Your task to perform on an android device: turn on priority inbox in the gmail app Image 0: 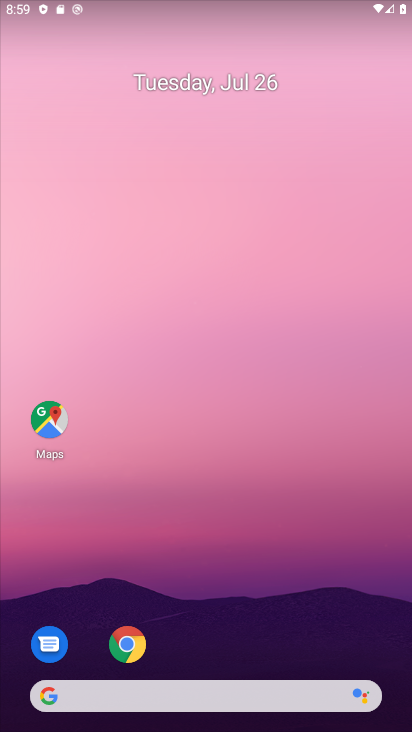
Step 0: drag from (221, 502) to (303, 9)
Your task to perform on an android device: turn on priority inbox in the gmail app Image 1: 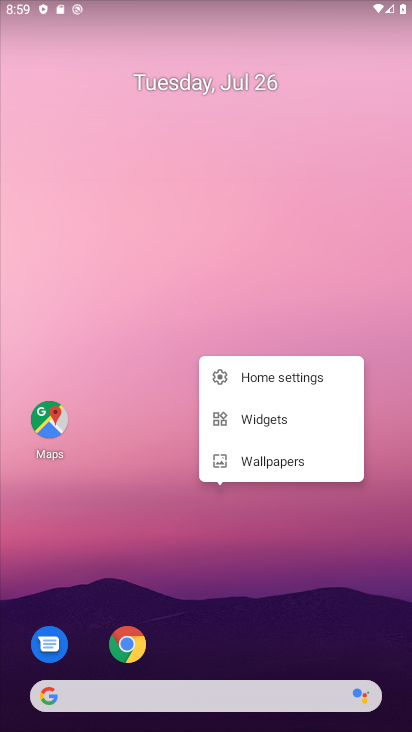
Step 1: drag from (226, 647) to (201, 20)
Your task to perform on an android device: turn on priority inbox in the gmail app Image 2: 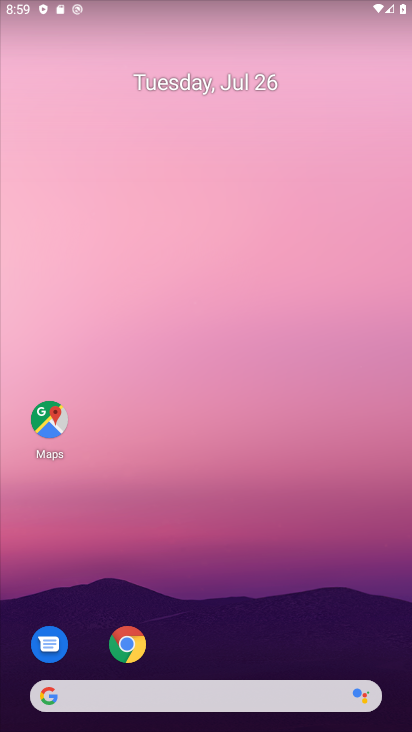
Step 2: drag from (210, 654) to (327, 80)
Your task to perform on an android device: turn on priority inbox in the gmail app Image 3: 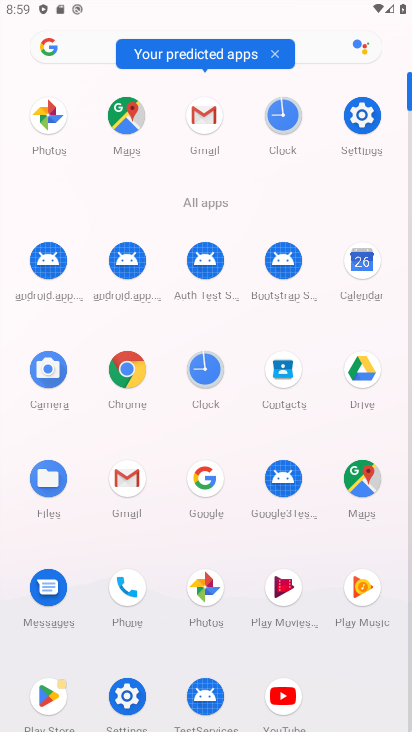
Step 3: click (124, 485)
Your task to perform on an android device: turn on priority inbox in the gmail app Image 4: 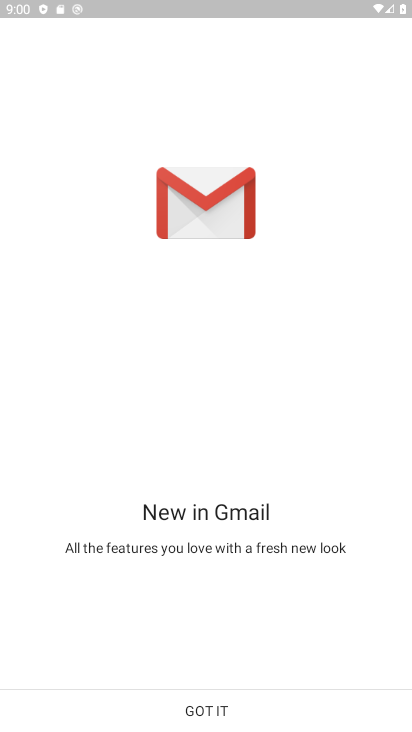
Step 4: click (233, 722)
Your task to perform on an android device: turn on priority inbox in the gmail app Image 5: 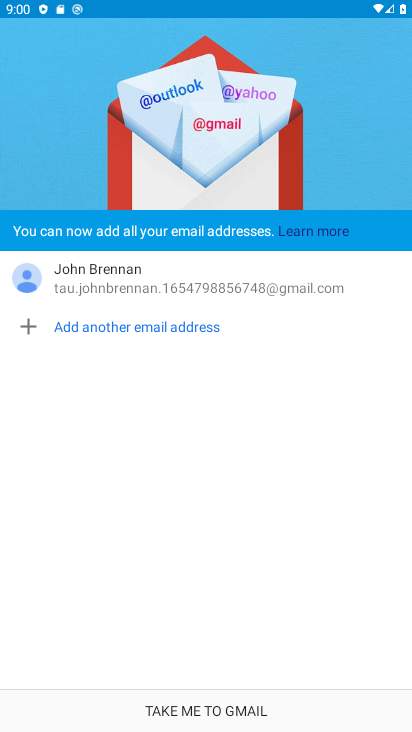
Step 5: click (231, 696)
Your task to perform on an android device: turn on priority inbox in the gmail app Image 6: 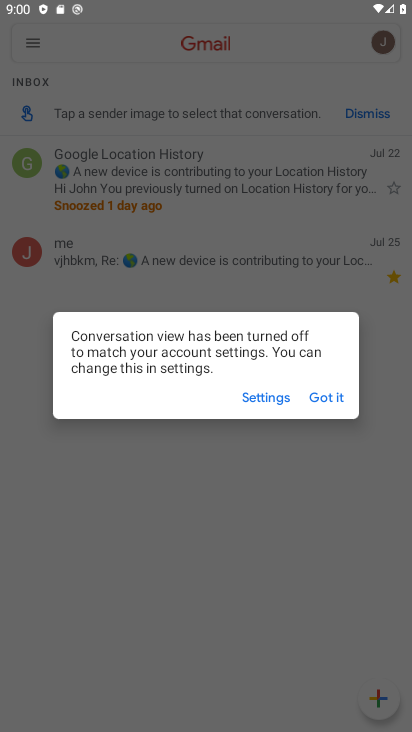
Step 6: click (326, 400)
Your task to perform on an android device: turn on priority inbox in the gmail app Image 7: 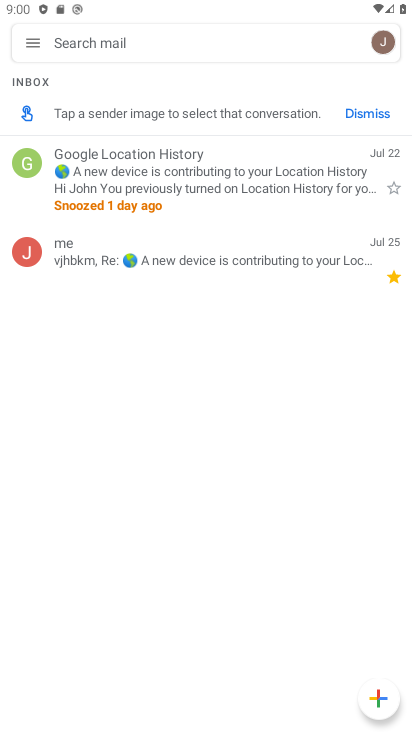
Step 7: click (32, 48)
Your task to perform on an android device: turn on priority inbox in the gmail app Image 8: 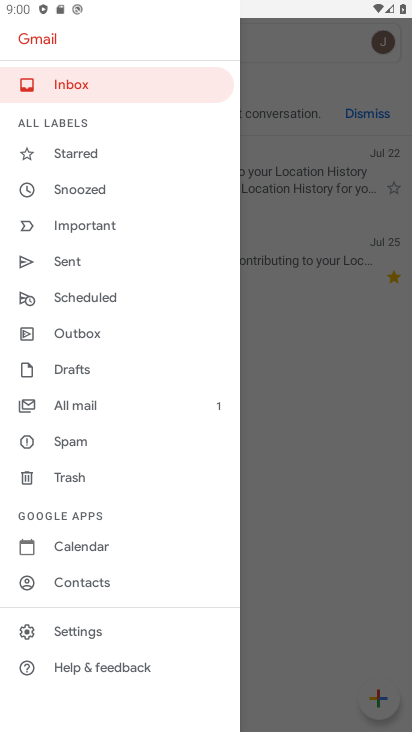
Step 8: click (97, 633)
Your task to perform on an android device: turn on priority inbox in the gmail app Image 9: 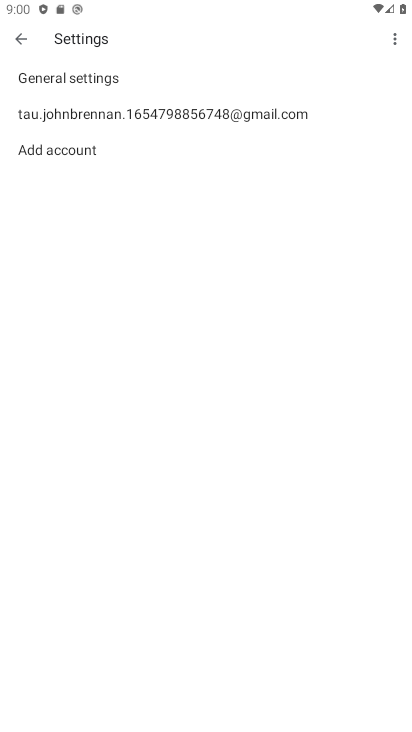
Step 9: click (107, 115)
Your task to perform on an android device: turn on priority inbox in the gmail app Image 10: 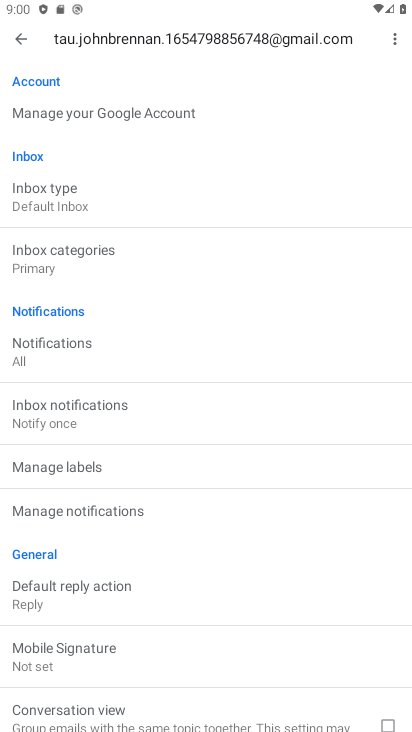
Step 10: click (58, 193)
Your task to perform on an android device: turn on priority inbox in the gmail app Image 11: 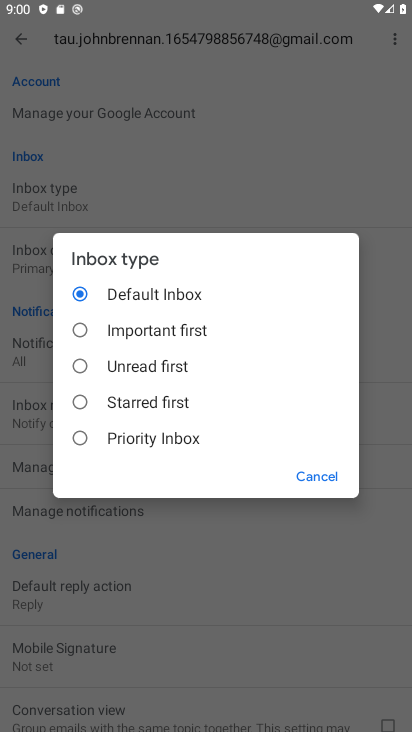
Step 11: click (162, 439)
Your task to perform on an android device: turn on priority inbox in the gmail app Image 12: 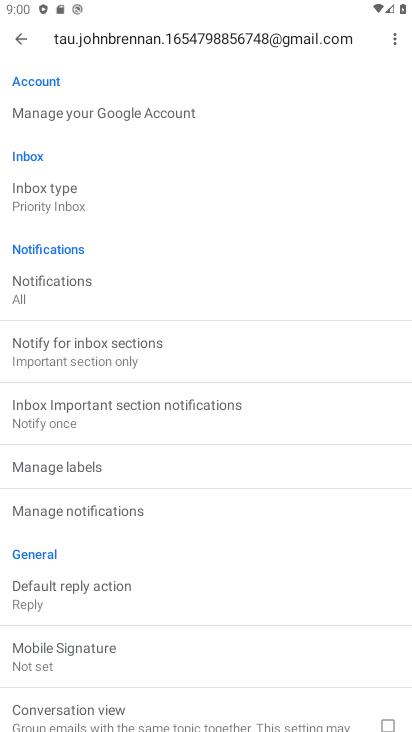
Step 12: task complete